Your task to perform on an android device: Open accessibility settings Image 0: 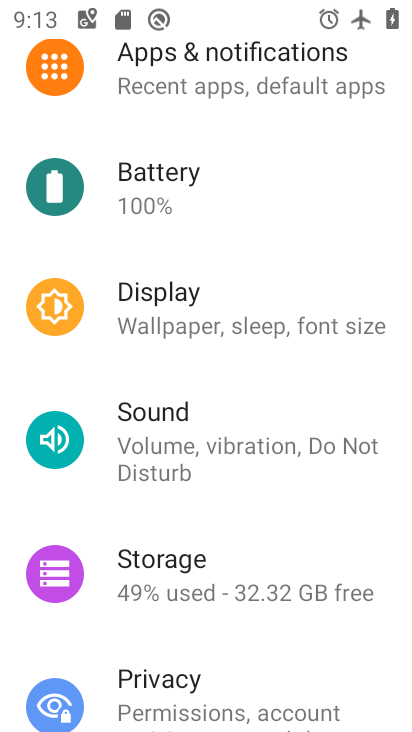
Step 0: press home button
Your task to perform on an android device: Open accessibility settings Image 1: 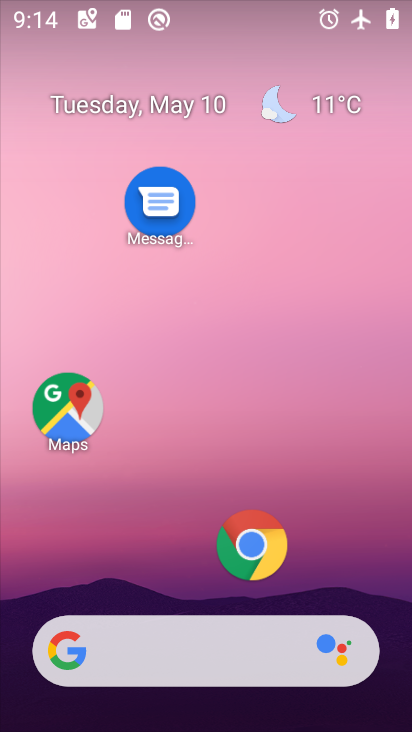
Step 1: drag from (201, 581) to (261, 75)
Your task to perform on an android device: Open accessibility settings Image 2: 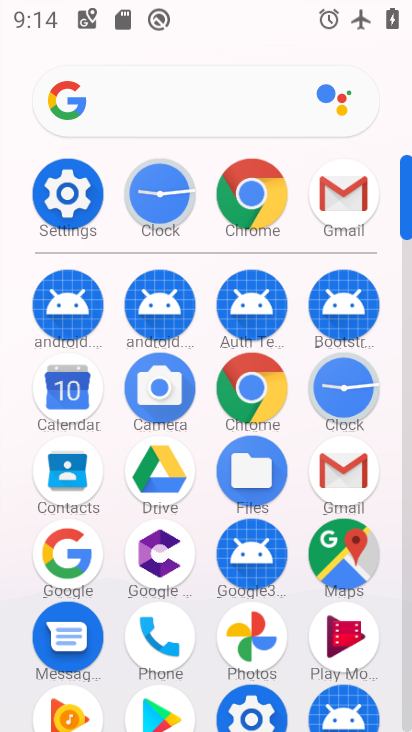
Step 2: click (64, 187)
Your task to perform on an android device: Open accessibility settings Image 3: 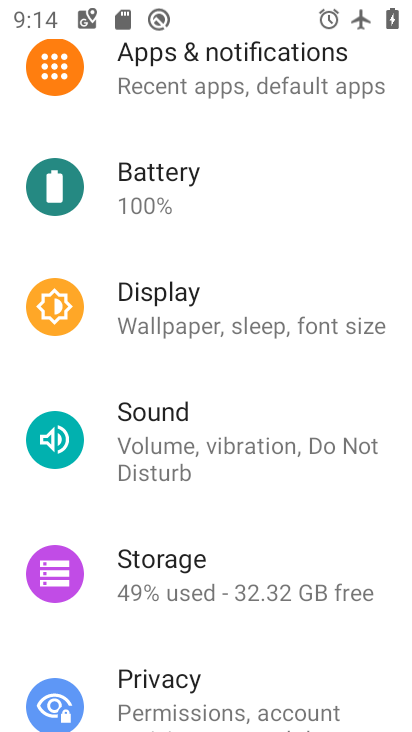
Step 3: drag from (226, 646) to (227, 103)
Your task to perform on an android device: Open accessibility settings Image 4: 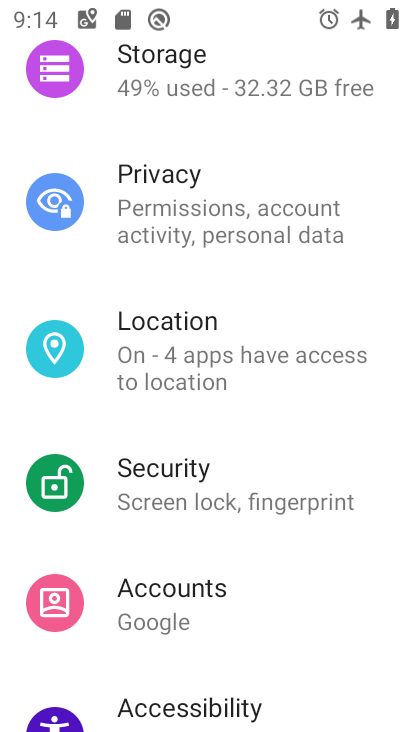
Step 4: click (280, 700)
Your task to perform on an android device: Open accessibility settings Image 5: 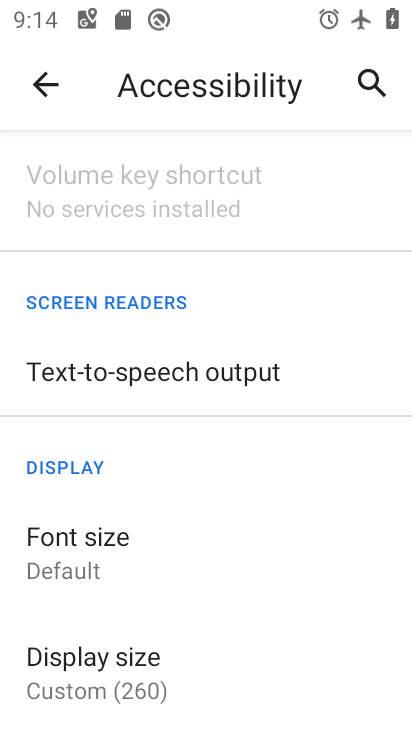
Step 5: task complete